Your task to perform on an android device: turn pop-ups on in chrome Image 0: 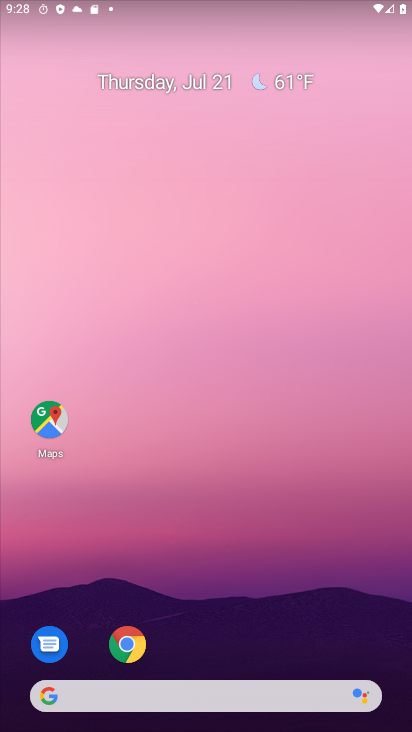
Step 0: drag from (316, 712) to (235, 275)
Your task to perform on an android device: turn pop-ups on in chrome Image 1: 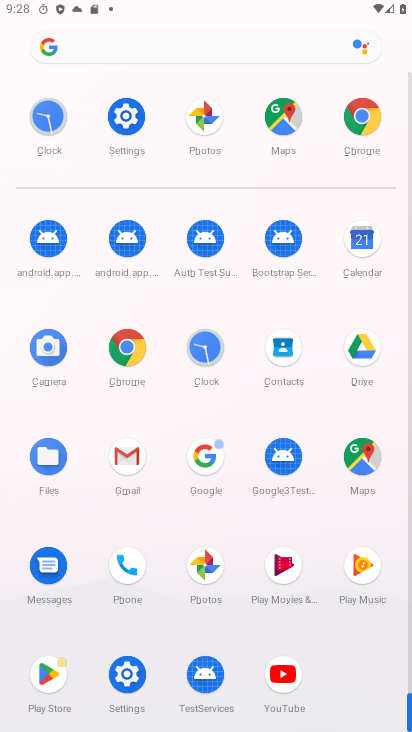
Step 1: click (365, 113)
Your task to perform on an android device: turn pop-ups on in chrome Image 2: 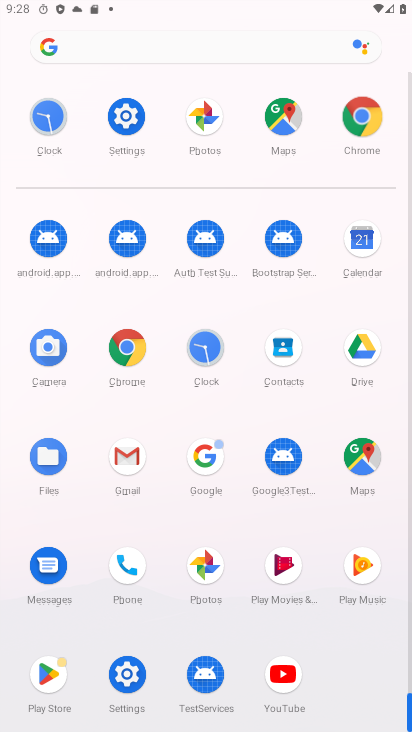
Step 2: click (363, 113)
Your task to perform on an android device: turn pop-ups on in chrome Image 3: 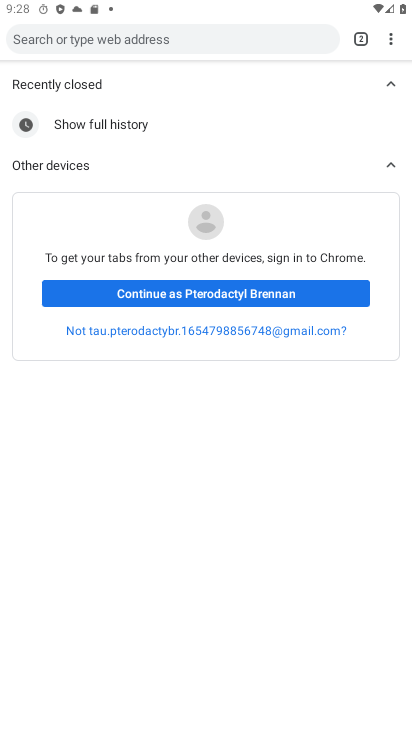
Step 3: drag from (387, 38) to (237, 338)
Your task to perform on an android device: turn pop-ups on in chrome Image 4: 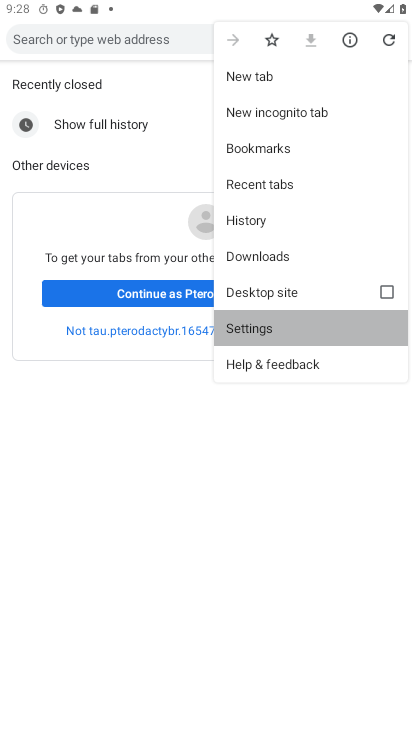
Step 4: click (236, 338)
Your task to perform on an android device: turn pop-ups on in chrome Image 5: 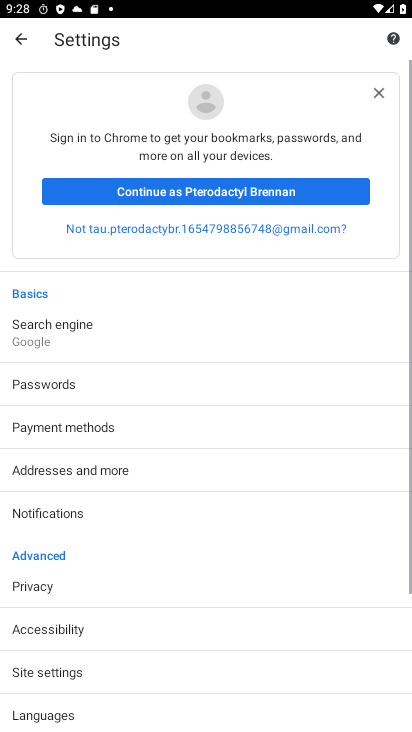
Step 5: drag from (109, 495) to (101, 164)
Your task to perform on an android device: turn pop-ups on in chrome Image 6: 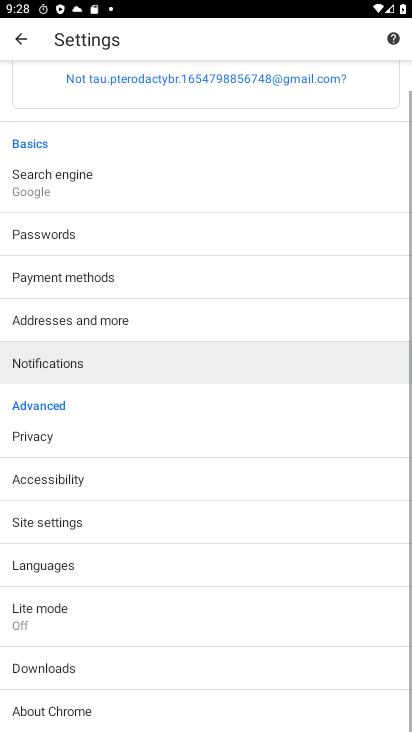
Step 6: drag from (141, 417) to (143, 123)
Your task to perform on an android device: turn pop-ups on in chrome Image 7: 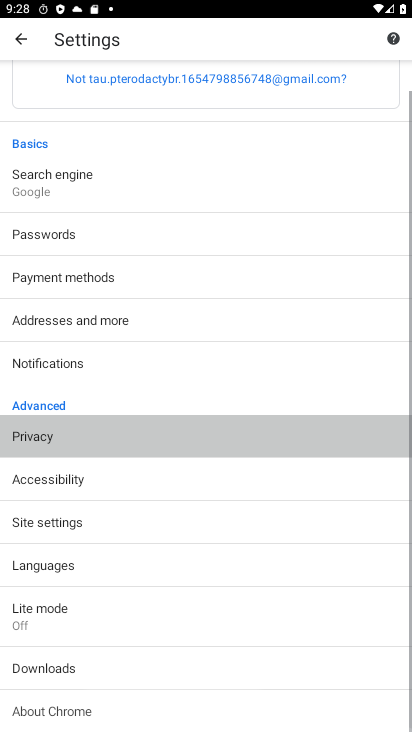
Step 7: drag from (166, 597) to (168, 291)
Your task to perform on an android device: turn pop-ups on in chrome Image 8: 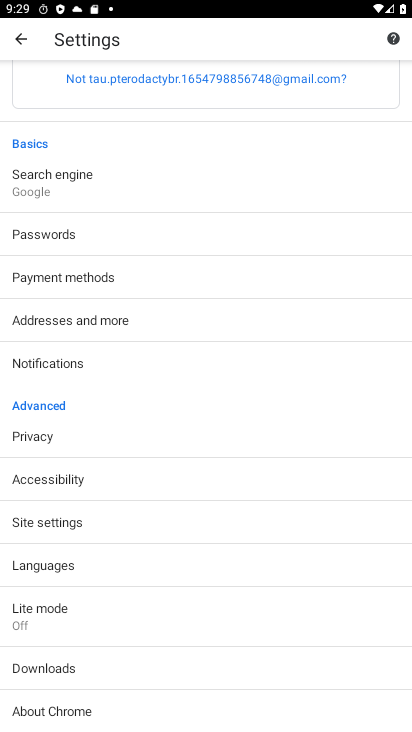
Step 8: click (39, 517)
Your task to perform on an android device: turn pop-ups on in chrome Image 9: 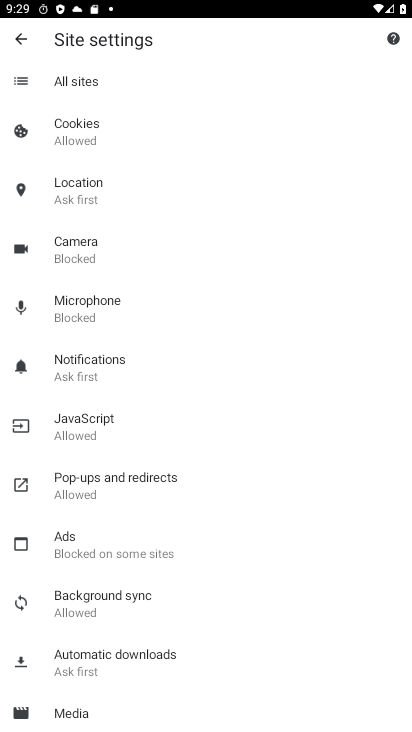
Step 9: click (87, 475)
Your task to perform on an android device: turn pop-ups on in chrome Image 10: 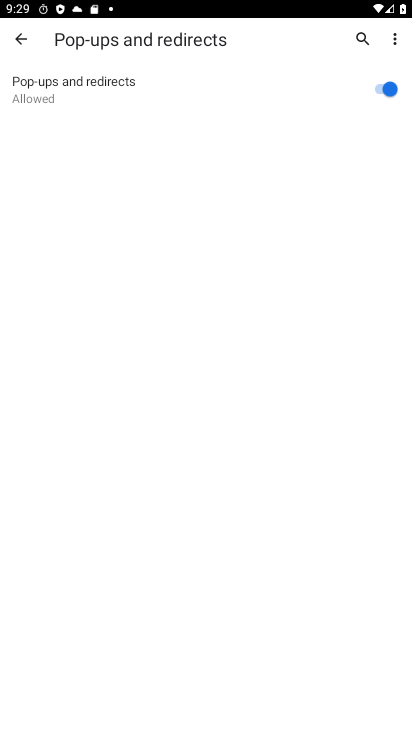
Step 10: task complete